Your task to perform on an android device: What's the weather? Image 0: 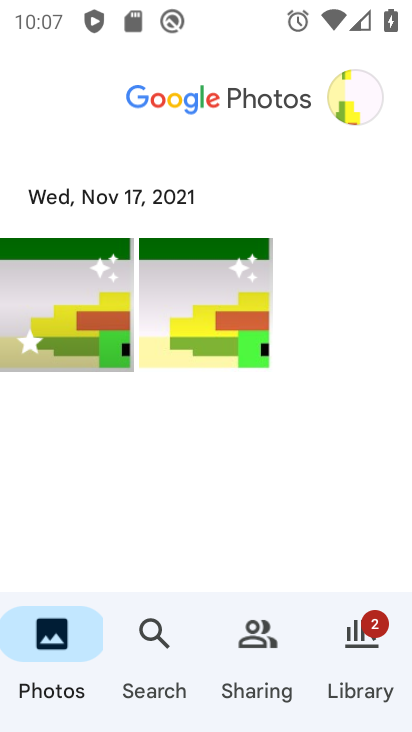
Step 0: press back button
Your task to perform on an android device: What's the weather? Image 1: 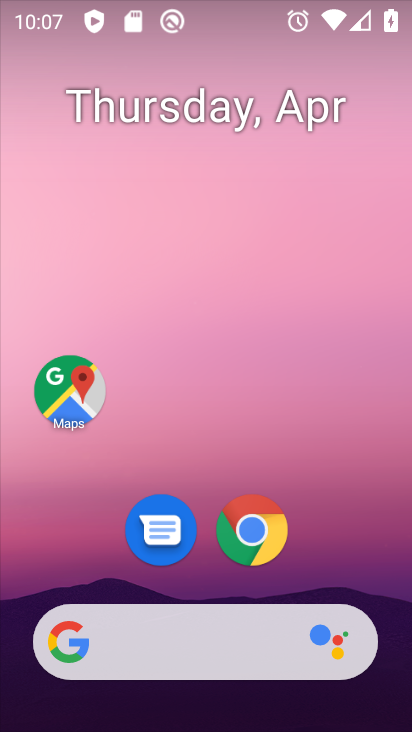
Step 1: drag from (0, 310) to (396, 226)
Your task to perform on an android device: What's the weather? Image 2: 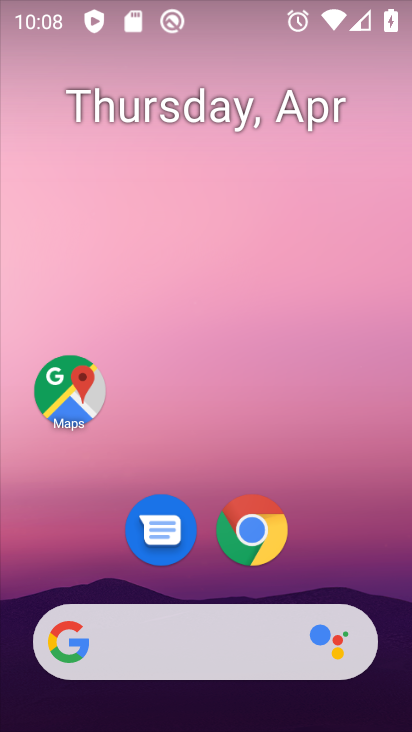
Step 2: drag from (101, 246) to (344, 232)
Your task to perform on an android device: What's the weather? Image 3: 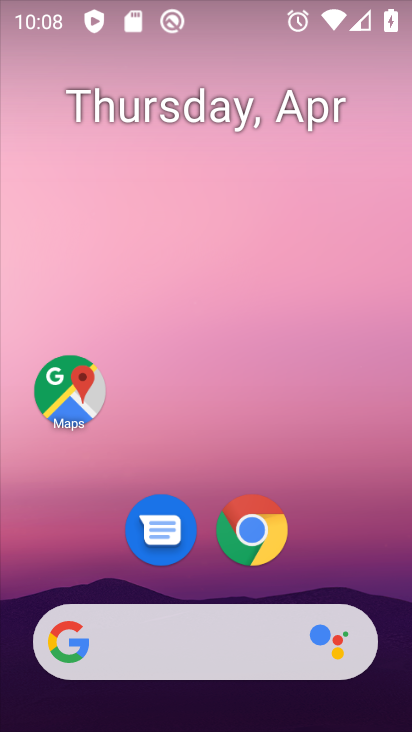
Step 3: drag from (42, 259) to (404, 228)
Your task to perform on an android device: What's the weather? Image 4: 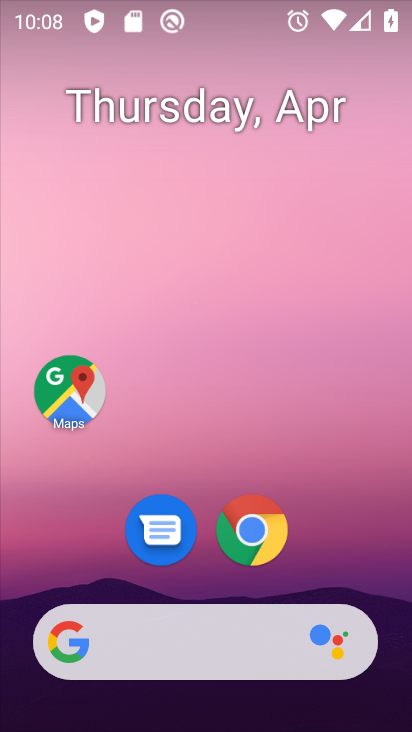
Step 4: drag from (3, 266) to (375, 219)
Your task to perform on an android device: What's the weather? Image 5: 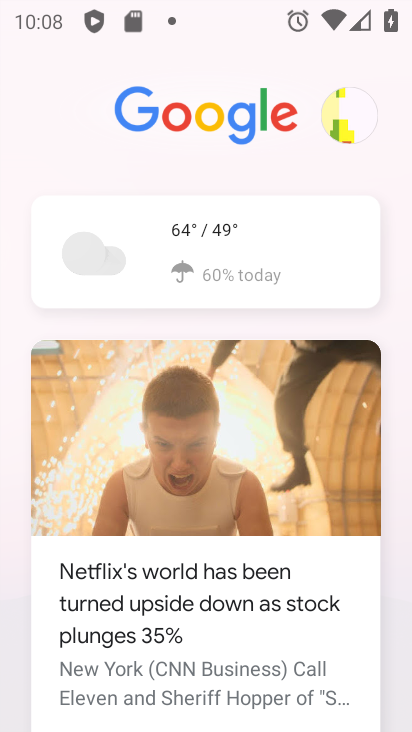
Step 5: click (262, 235)
Your task to perform on an android device: What's the weather? Image 6: 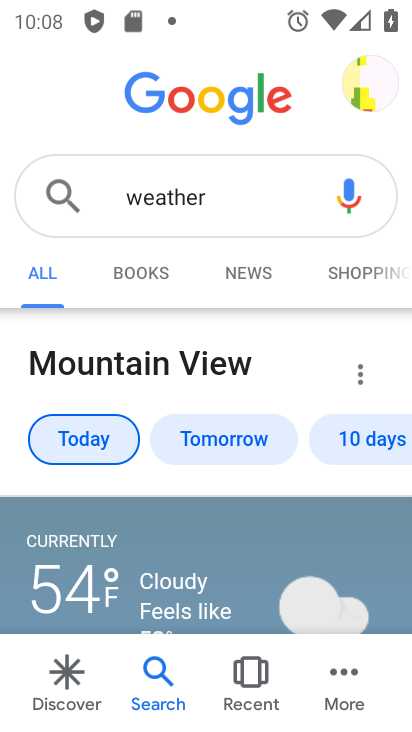
Step 6: task complete